Your task to perform on an android device: turn on priority inbox in the gmail app Image 0: 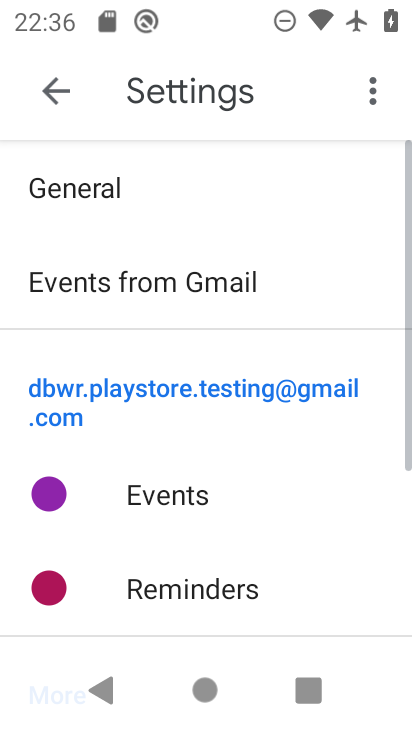
Step 0: drag from (221, 453) to (223, 101)
Your task to perform on an android device: turn on priority inbox in the gmail app Image 1: 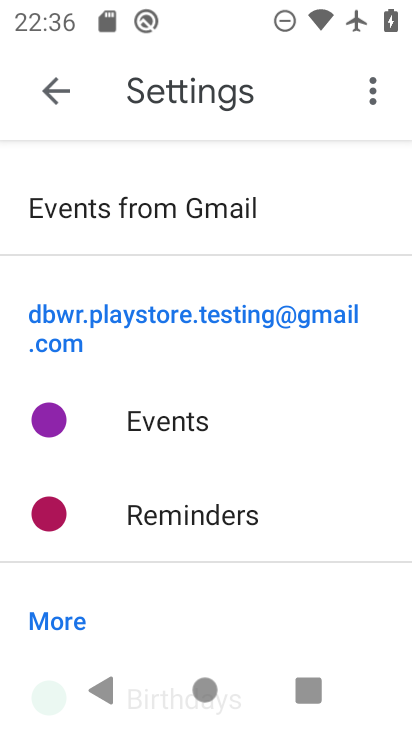
Step 1: press home button
Your task to perform on an android device: turn on priority inbox in the gmail app Image 2: 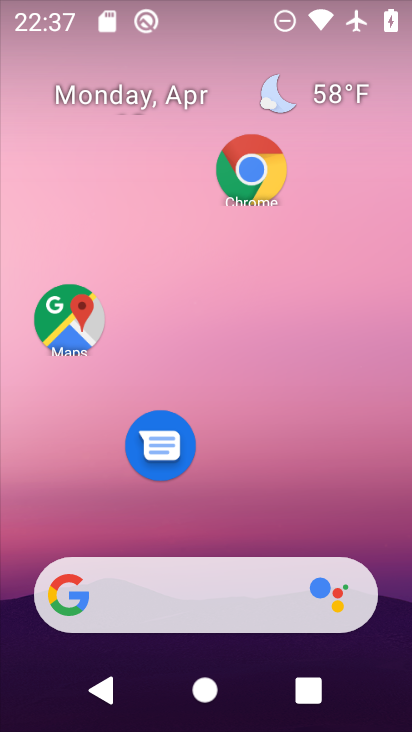
Step 2: drag from (204, 540) to (192, 144)
Your task to perform on an android device: turn on priority inbox in the gmail app Image 3: 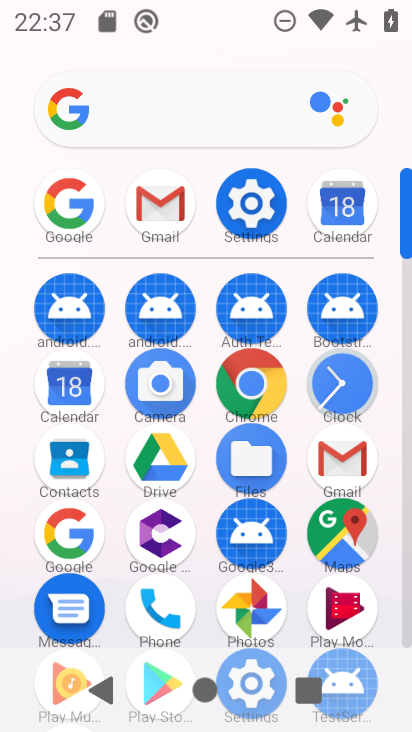
Step 3: click (329, 450)
Your task to perform on an android device: turn on priority inbox in the gmail app Image 4: 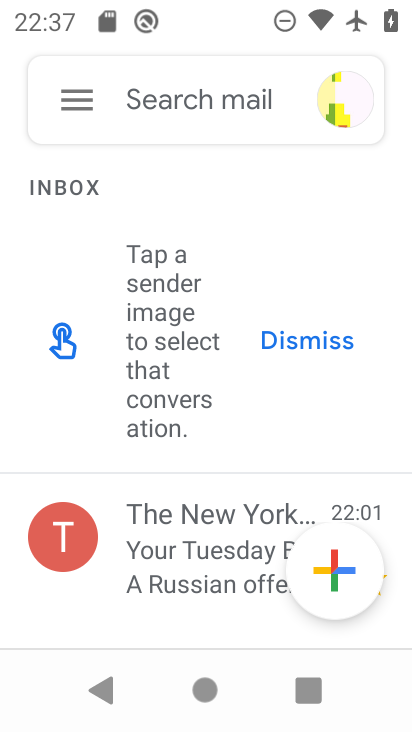
Step 4: click (63, 96)
Your task to perform on an android device: turn on priority inbox in the gmail app Image 5: 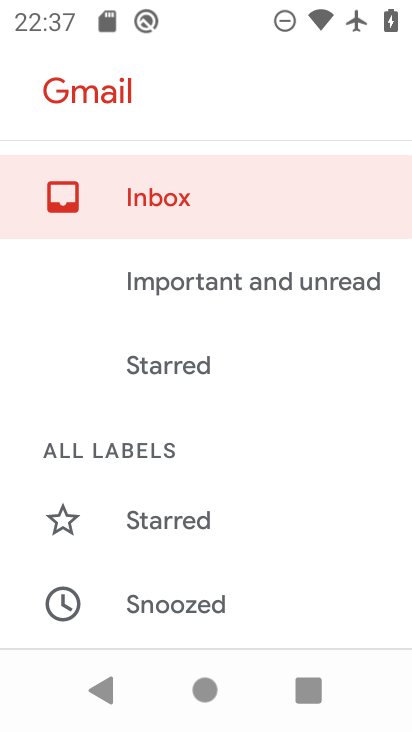
Step 5: drag from (239, 537) to (235, 227)
Your task to perform on an android device: turn on priority inbox in the gmail app Image 6: 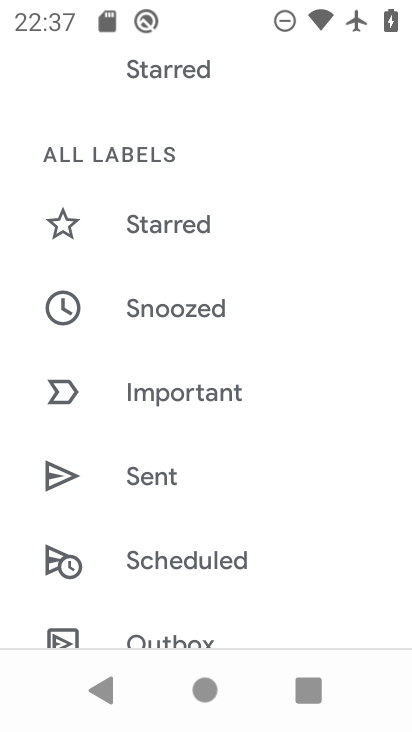
Step 6: drag from (212, 528) to (247, 234)
Your task to perform on an android device: turn on priority inbox in the gmail app Image 7: 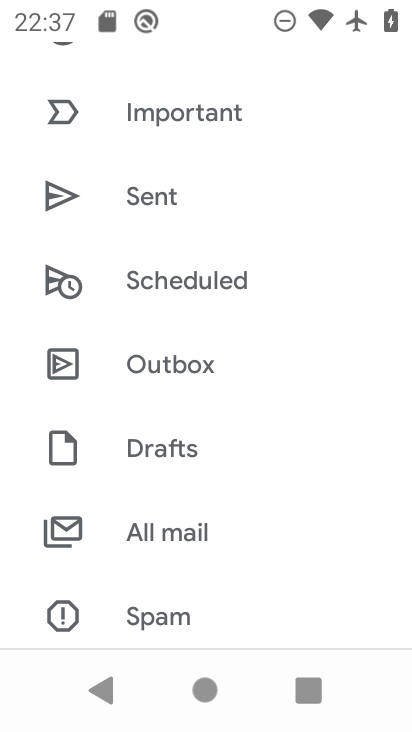
Step 7: drag from (238, 553) to (258, 254)
Your task to perform on an android device: turn on priority inbox in the gmail app Image 8: 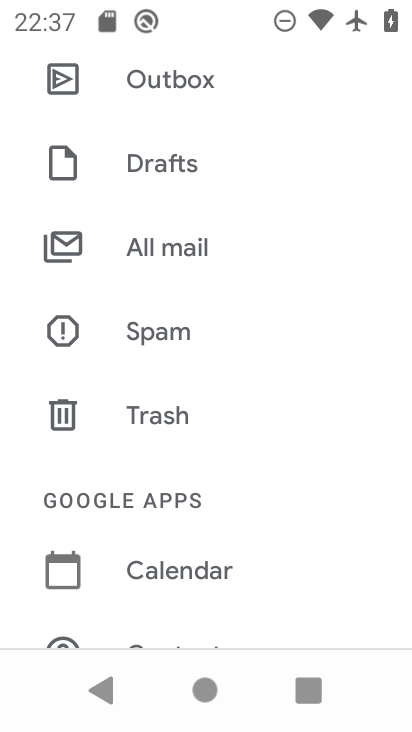
Step 8: drag from (216, 519) to (254, 286)
Your task to perform on an android device: turn on priority inbox in the gmail app Image 9: 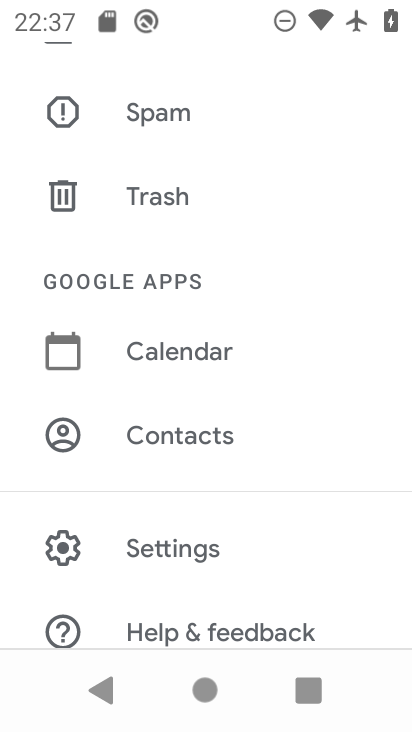
Step 9: click (169, 539)
Your task to perform on an android device: turn on priority inbox in the gmail app Image 10: 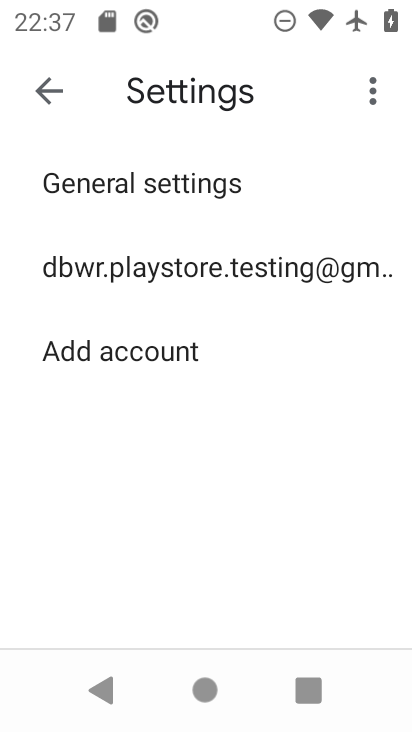
Step 10: click (182, 272)
Your task to perform on an android device: turn on priority inbox in the gmail app Image 11: 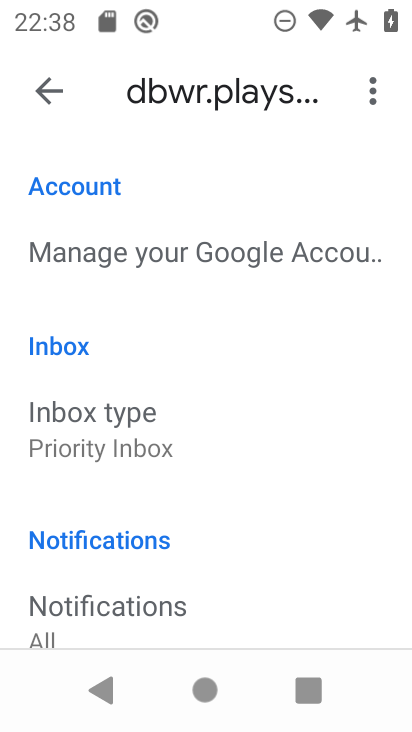
Step 11: click (172, 426)
Your task to perform on an android device: turn on priority inbox in the gmail app Image 12: 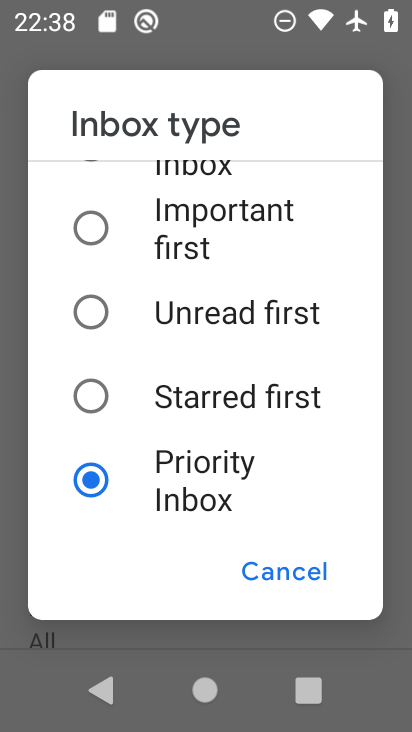
Step 12: task complete